Your task to perform on an android device: Search for Mexican restaurants on Maps Image 0: 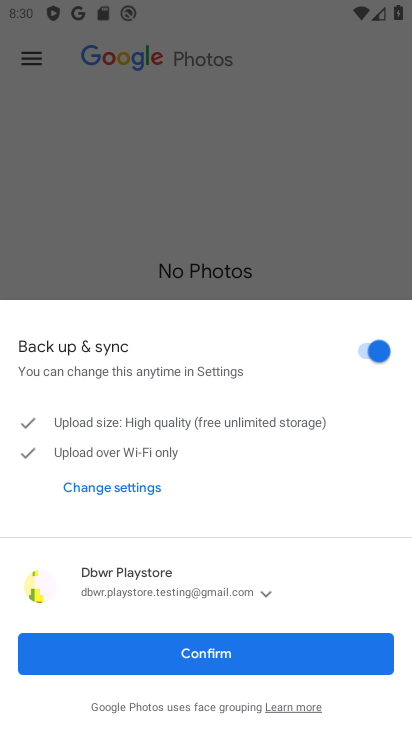
Step 0: press home button
Your task to perform on an android device: Search for Mexican restaurants on Maps Image 1: 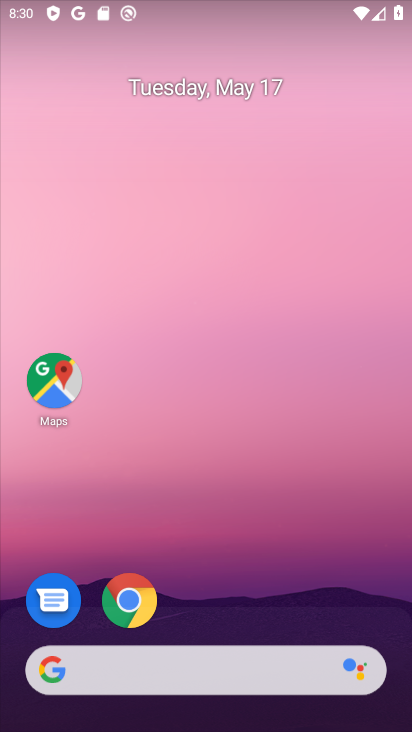
Step 1: drag from (220, 724) to (178, 231)
Your task to perform on an android device: Search for Mexican restaurants on Maps Image 2: 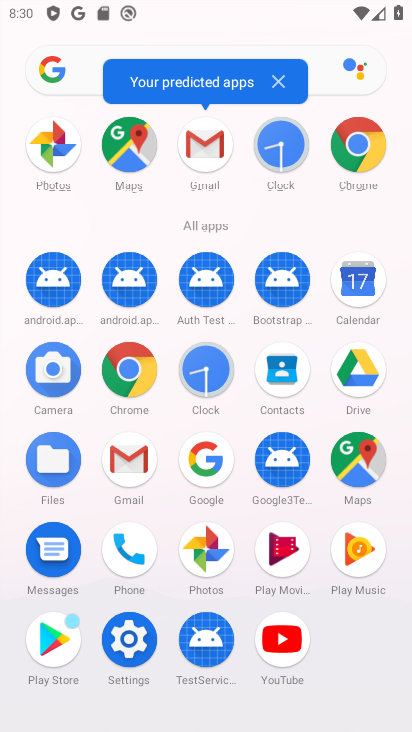
Step 2: click (362, 444)
Your task to perform on an android device: Search for Mexican restaurants on Maps Image 3: 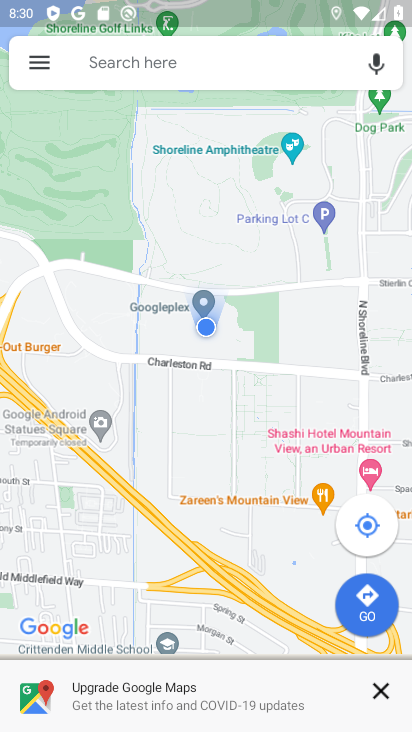
Step 3: click (203, 66)
Your task to perform on an android device: Search for Mexican restaurants on Maps Image 4: 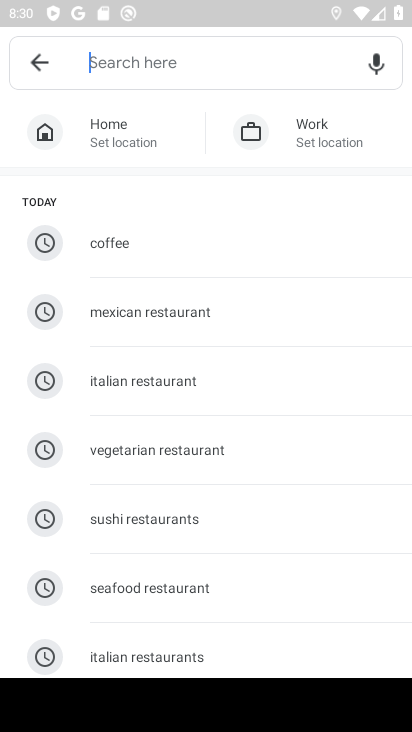
Step 4: type "Mexican restaurants"
Your task to perform on an android device: Search for Mexican restaurants on Maps Image 5: 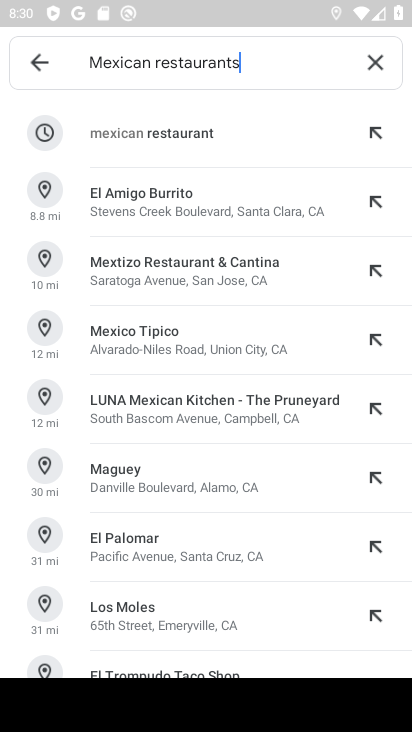
Step 5: click (156, 133)
Your task to perform on an android device: Search for Mexican restaurants on Maps Image 6: 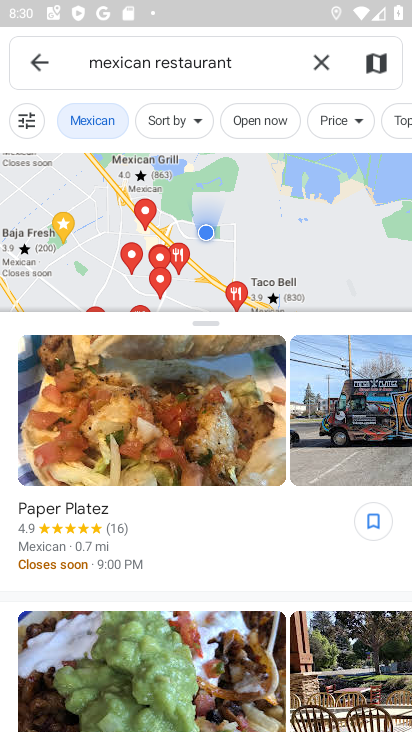
Step 6: task complete